Your task to perform on an android device: find snoozed emails in the gmail app Image 0: 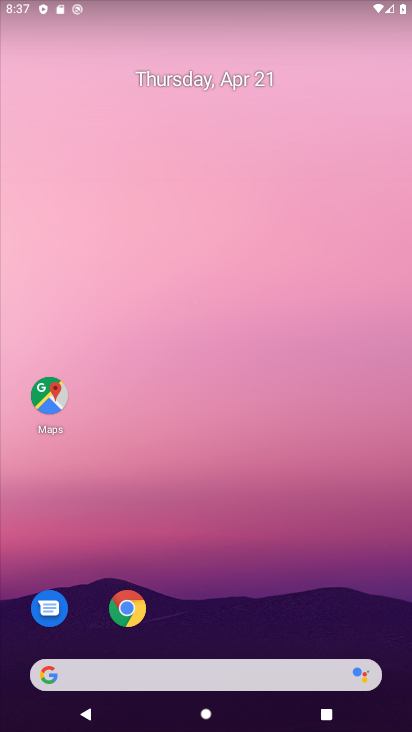
Step 0: drag from (296, 545) to (234, 59)
Your task to perform on an android device: find snoozed emails in the gmail app Image 1: 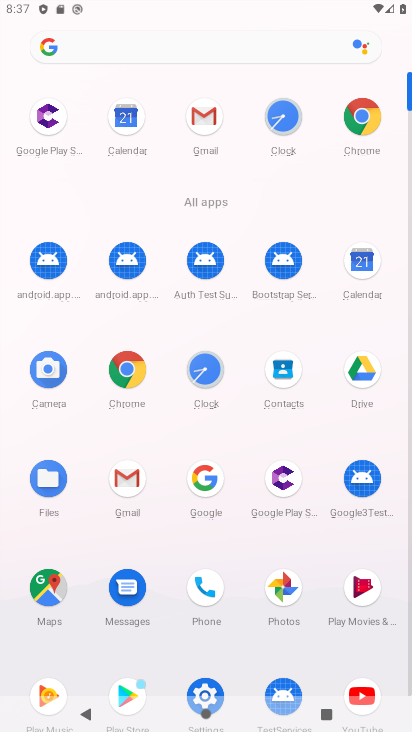
Step 1: click (234, 59)
Your task to perform on an android device: find snoozed emails in the gmail app Image 2: 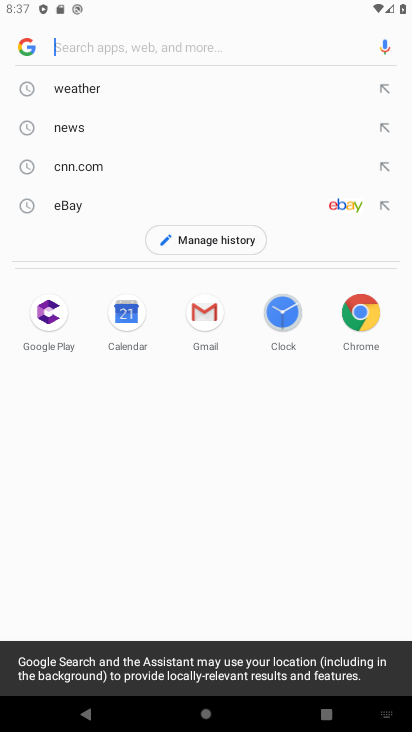
Step 2: press back button
Your task to perform on an android device: find snoozed emails in the gmail app Image 3: 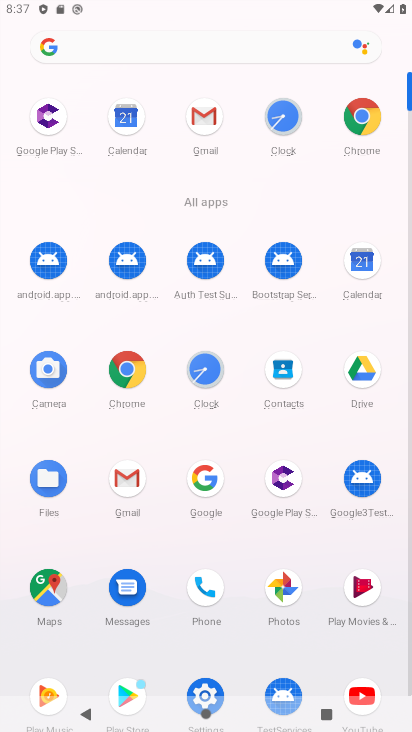
Step 3: click (207, 120)
Your task to perform on an android device: find snoozed emails in the gmail app Image 4: 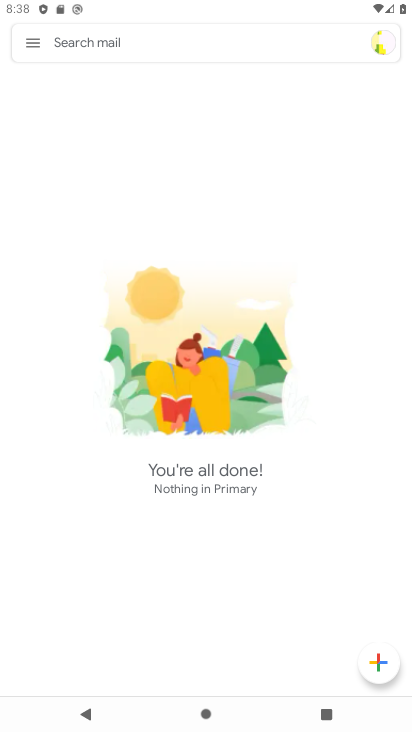
Step 4: click (34, 44)
Your task to perform on an android device: find snoozed emails in the gmail app Image 5: 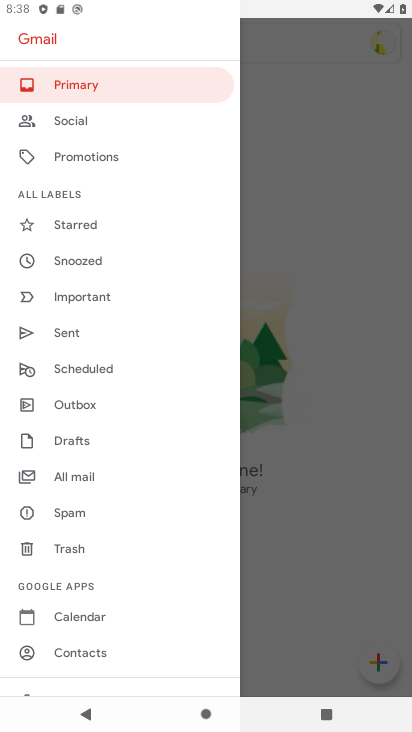
Step 5: drag from (107, 645) to (136, 212)
Your task to perform on an android device: find snoozed emails in the gmail app Image 6: 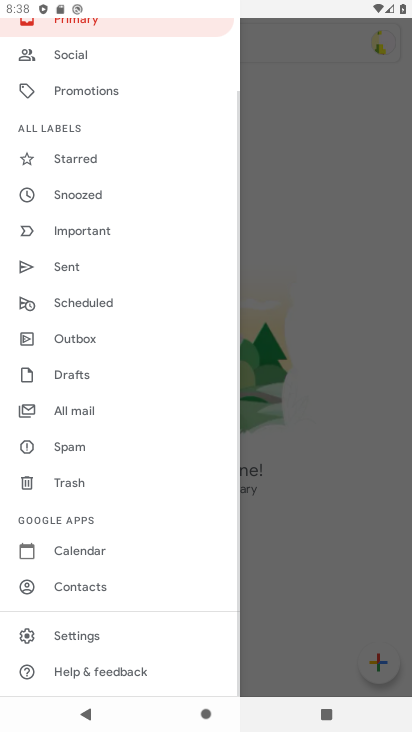
Step 6: click (98, 628)
Your task to perform on an android device: find snoozed emails in the gmail app Image 7: 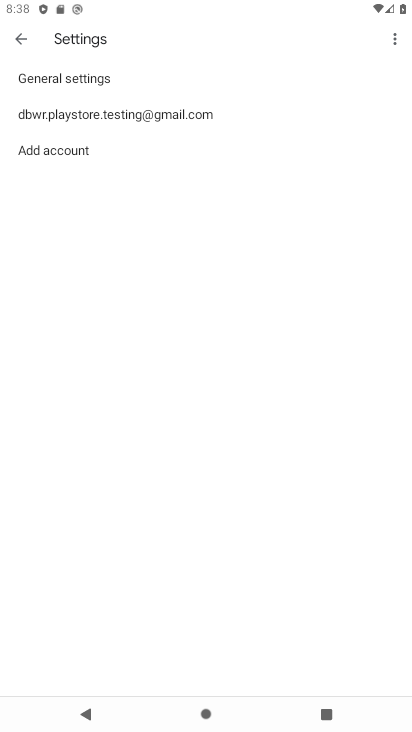
Step 7: click (186, 113)
Your task to perform on an android device: find snoozed emails in the gmail app Image 8: 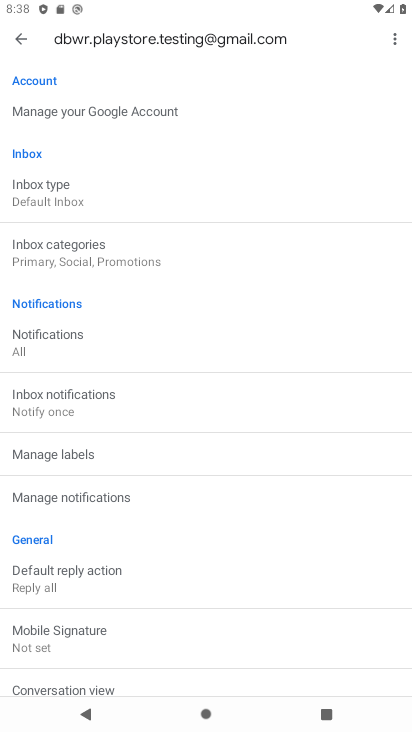
Step 8: press back button
Your task to perform on an android device: find snoozed emails in the gmail app Image 9: 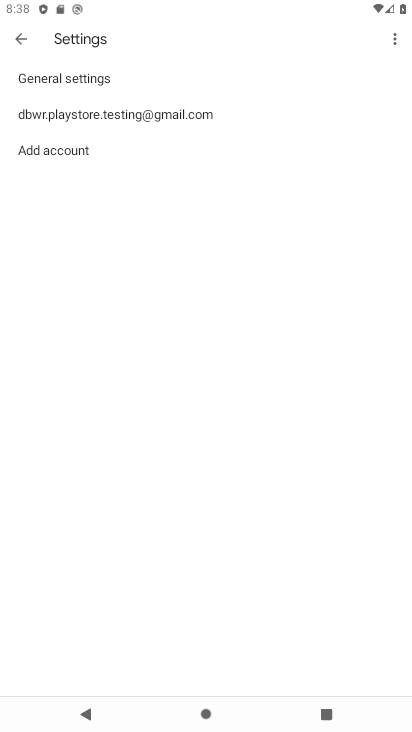
Step 9: press back button
Your task to perform on an android device: find snoozed emails in the gmail app Image 10: 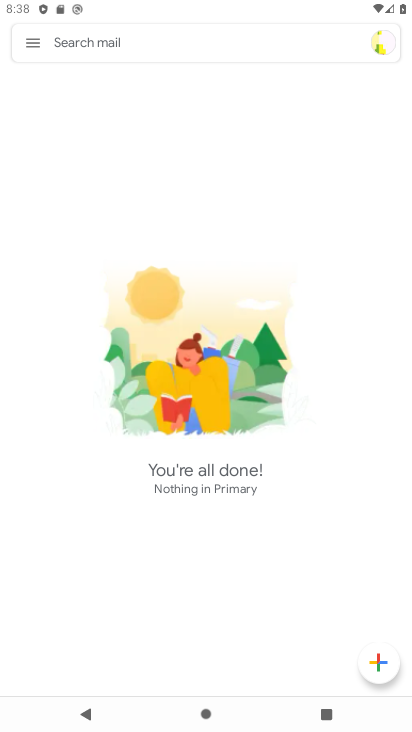
Step 10: click (32, 39)
Your task to perform on an android device: find snoozed emails in the gmail app Image 11: 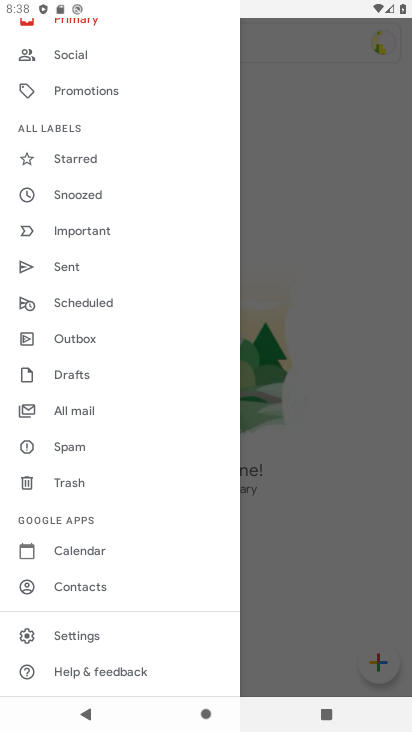
Step 11: click (158, 199)
Your task to perform on an android device: find snoozed emails in the gmail app Image 12: 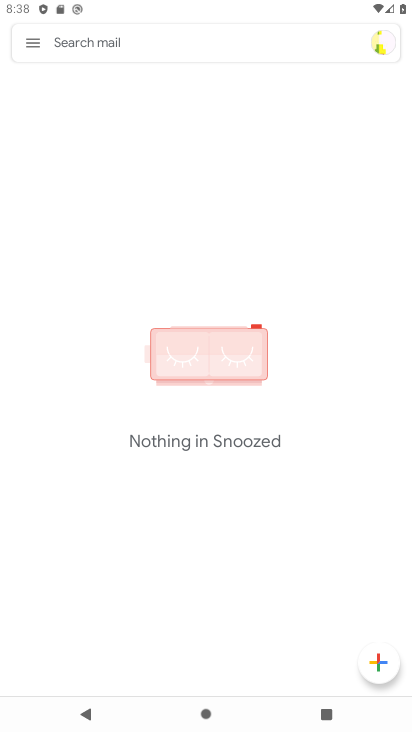
Step 12: task complete